Your task to perform on an android device: Go to privacy settings Image 0: 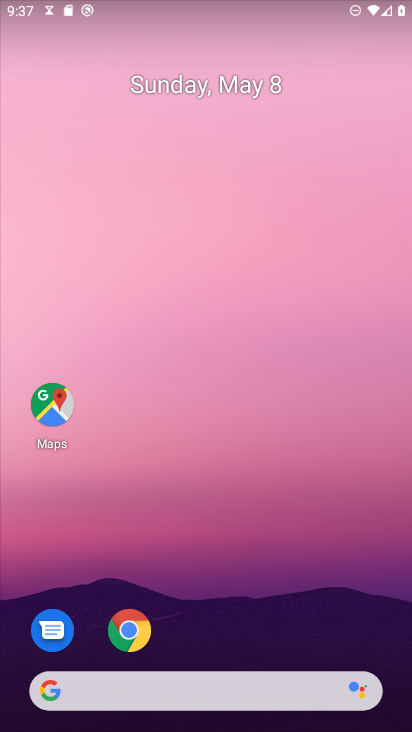
Step 0: drag from (181, 702) to (286, 88)
Your task to perform on an android device: Go to privacy settings Image 1: 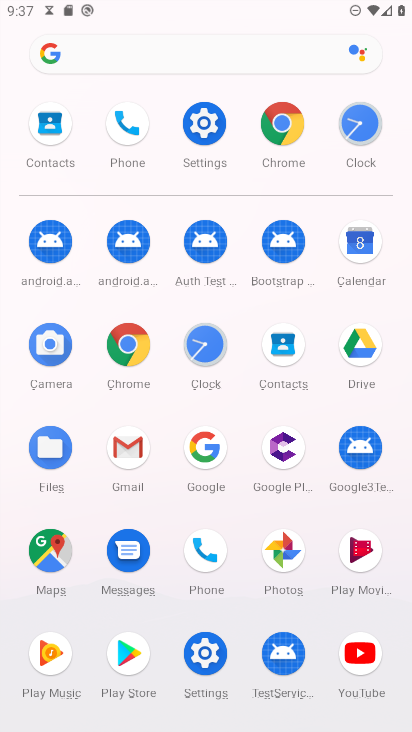
Step 1: click (198, 126)
Your task to perform on an android device: Go to privacy settings Image 2: 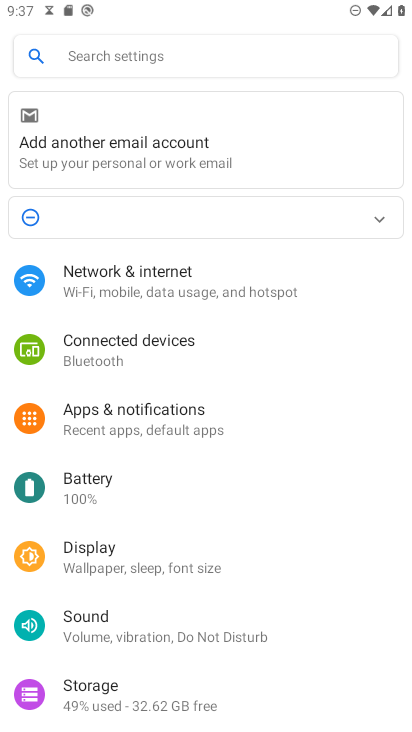
Step 2: drag from (146, 508) to (236, 258)
Your task to perform on an android device: Go to privacy settings Image 3: 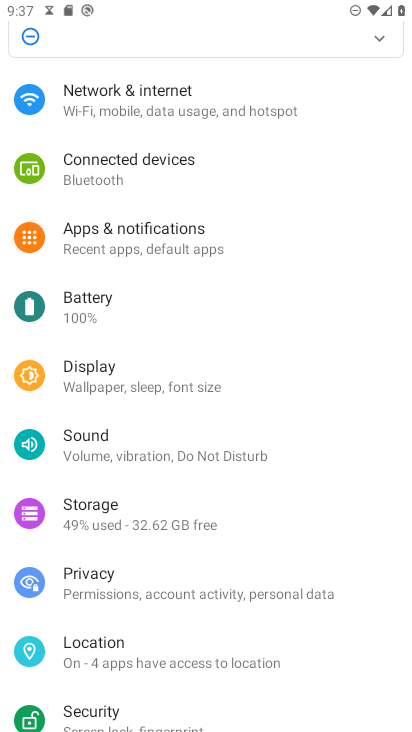
Step 3: click (105, 585)
Your task to perform on an android device: Go to privacy settings Image 4: 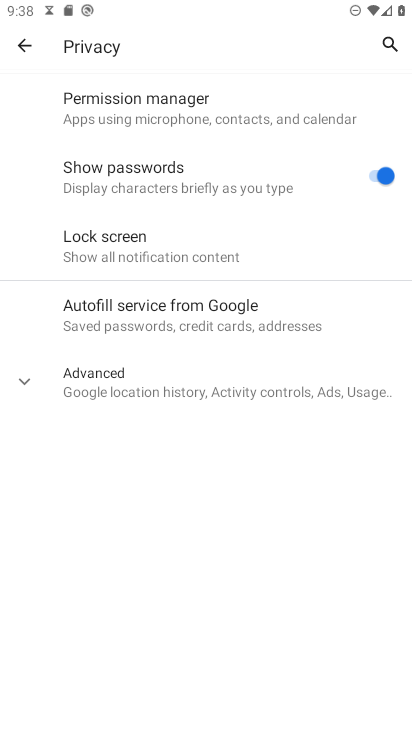
Step 4: task complete